Your task to perform on an android device: View the shopping cart on costco. Image 0: 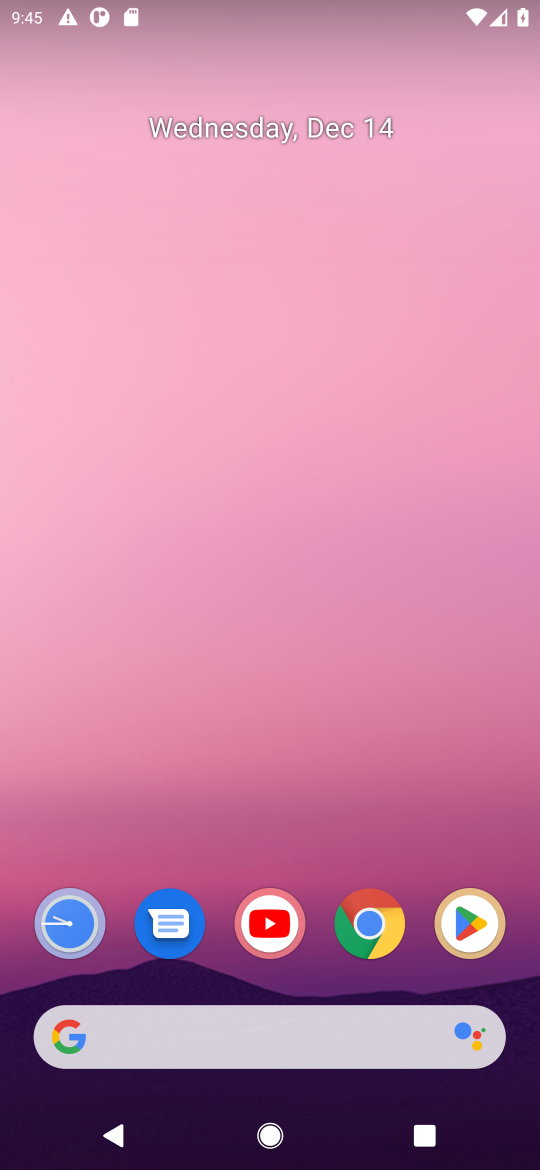
Step 0: click (369, 941)
Your task to perform on an android device: View the shopping cart on costco. Image 1: 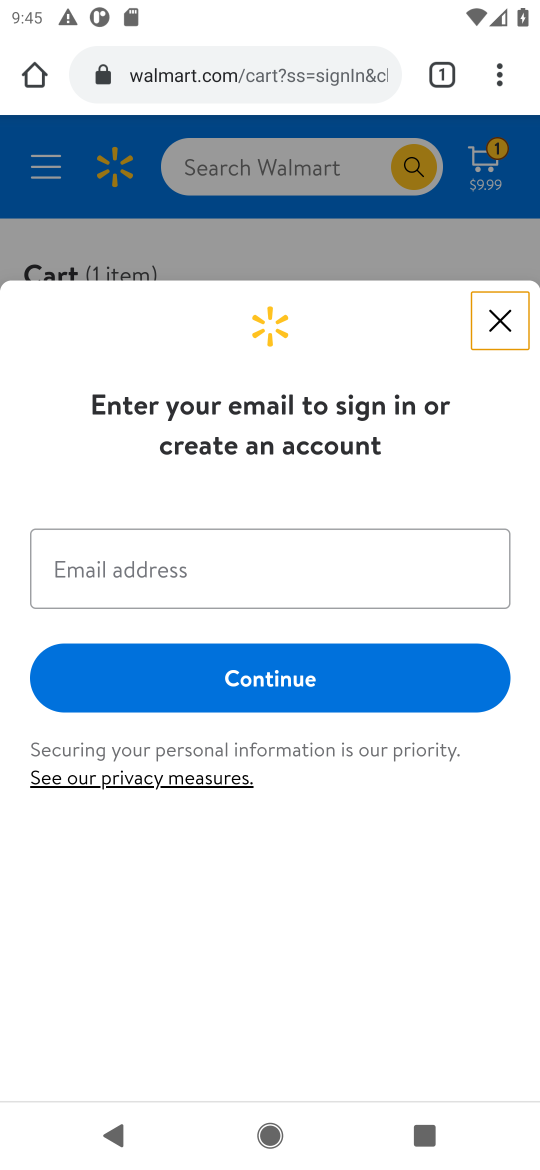
Step 1: click (197, 82)
Your task to perform on an android device: View the shopping cart on costco. Image 2: 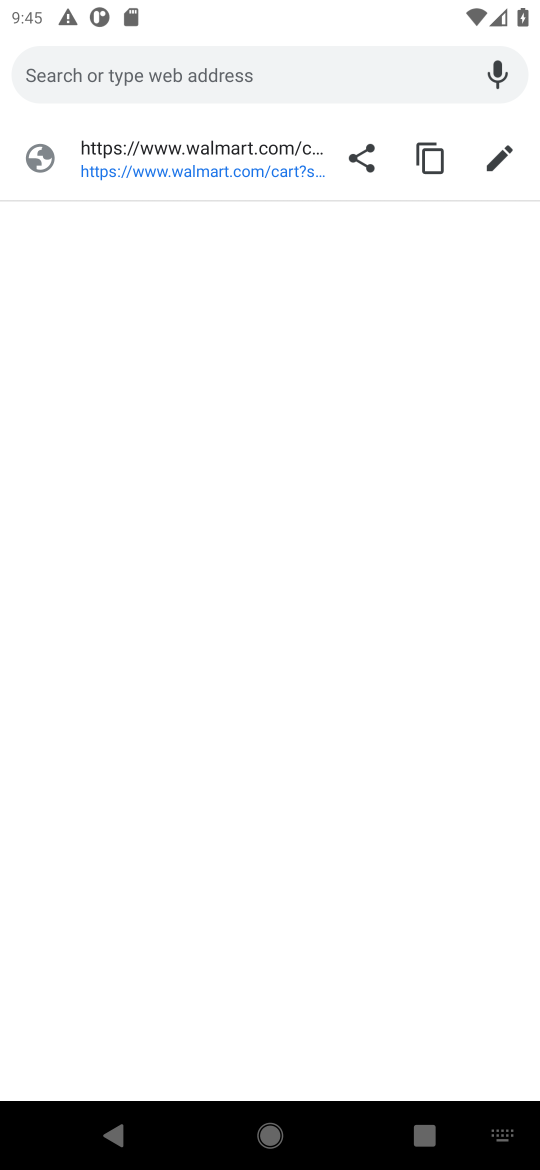
Step 2: type "costco.com"
Your task to perform on an android device: View the shopping cart on costco. Image 3: 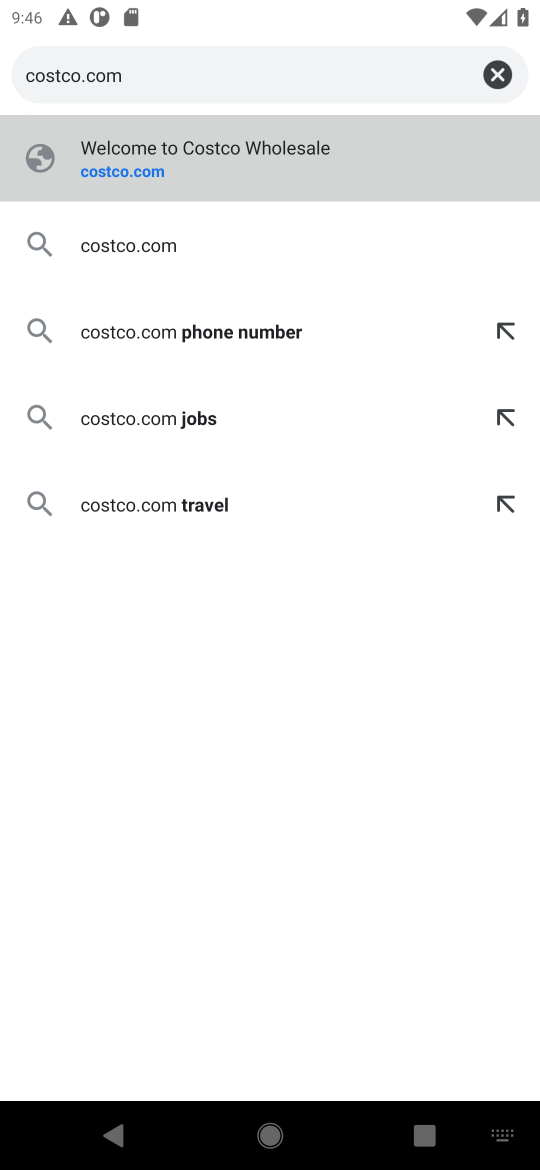
Step 3: click (117, 179)
Your task to perform on an android device: View the shopping cart on costco. Image 4: 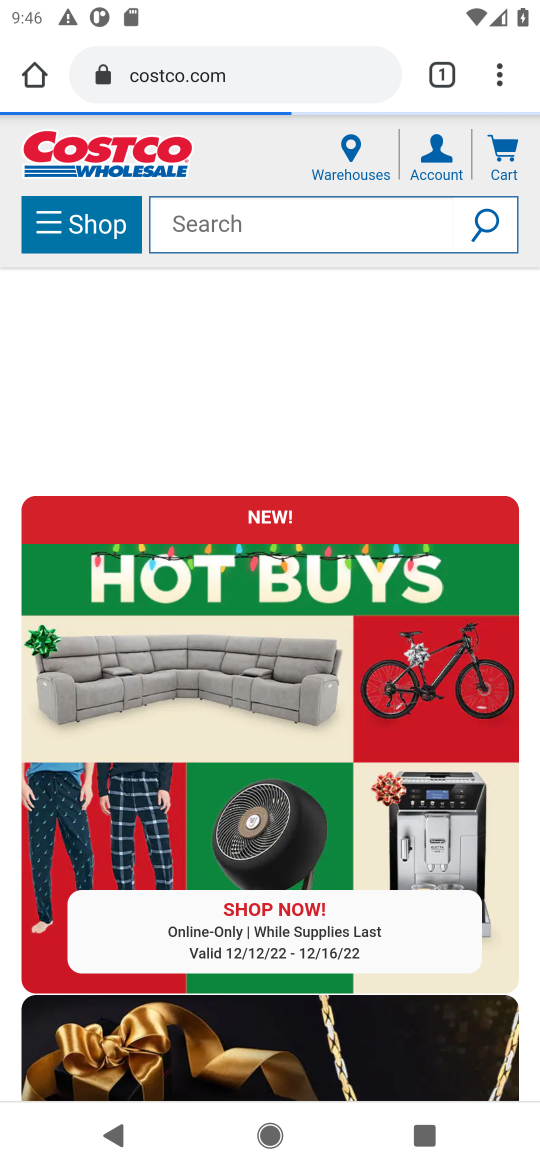
Step 4: click (507, 160)
Your task to perform on an android device: View the shopping cart on costco. Image 5: 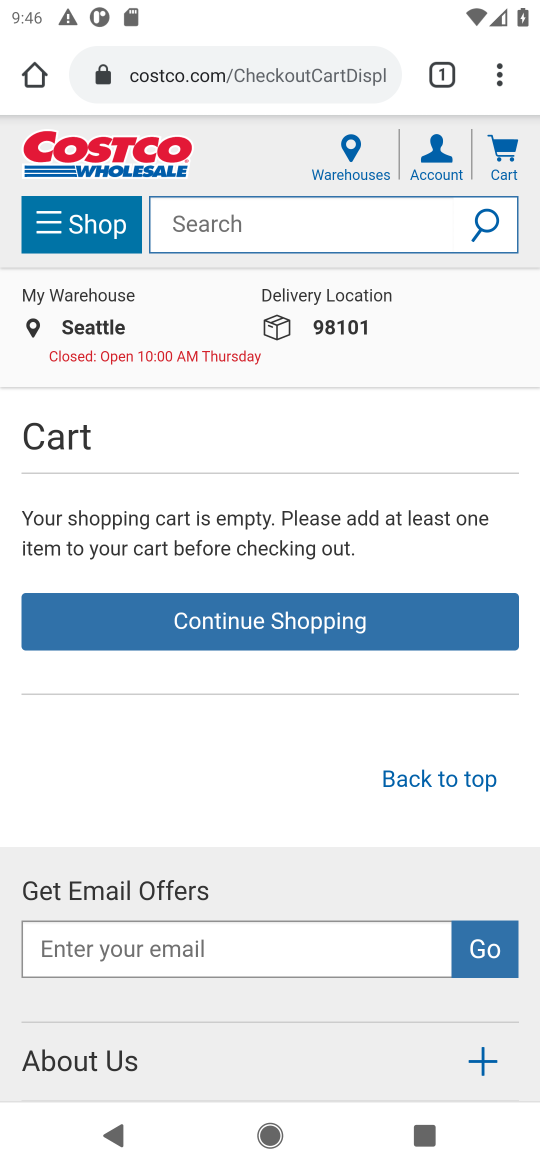
Step 5: task complete